Your task to perform on an android device: Open settings Image 0: 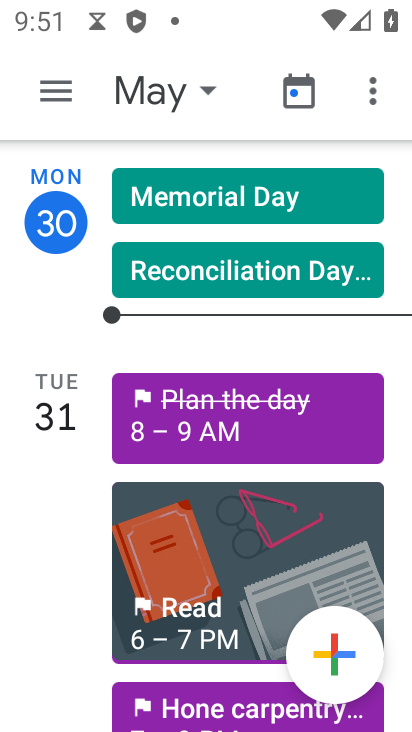
Step 0: press home button
Your task to perform on an android device: Open settings Image 1: 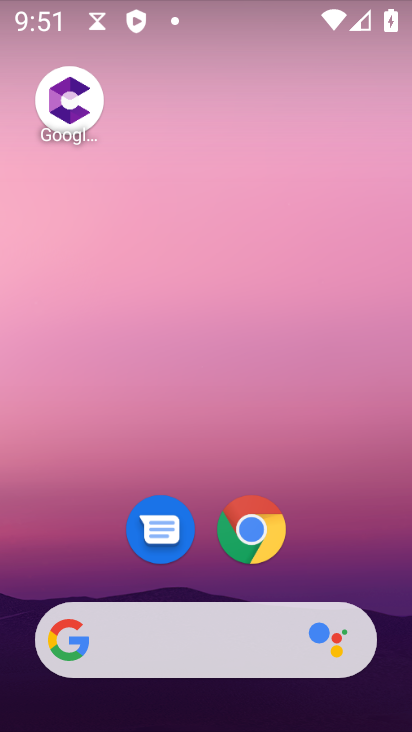
Step 1: drag from (344, 529) to (298, 86)
Your task to perform on an android device: Open settings Image 2: 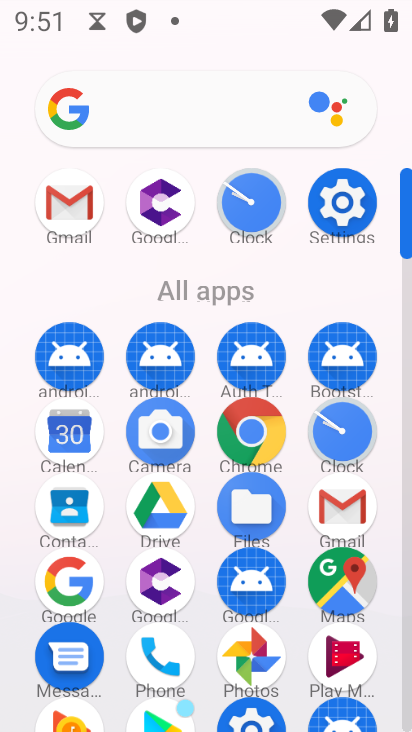
Step 2: click (342, 201)
Your task to perform on an android device: Open settings Image 3: 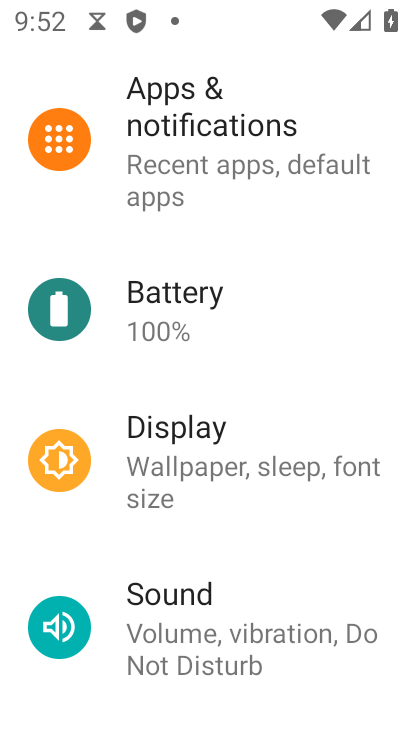
Step 3: task complete